Your task to perform on an android device: Go to settings Image 0: 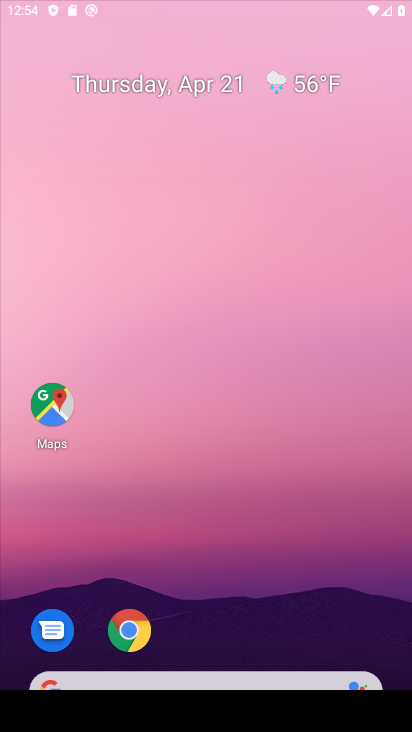
Step 0: drag from (335, 15) to (284, 362)
Your task to perform on an android device: Go to settings Image 1: 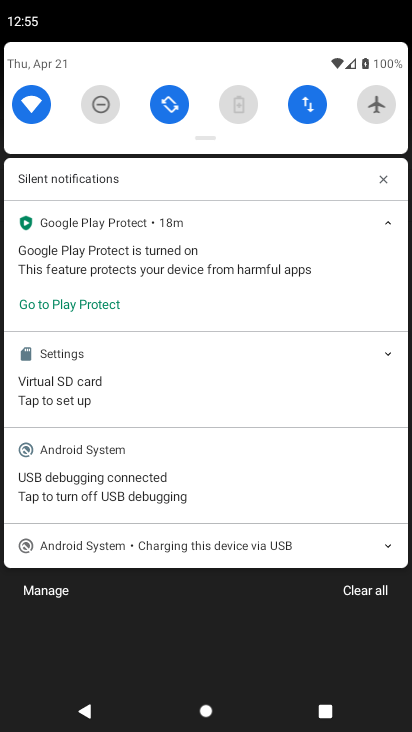
Step 1: press home button
Your task to perform on an android device: Go to settings Image 2: 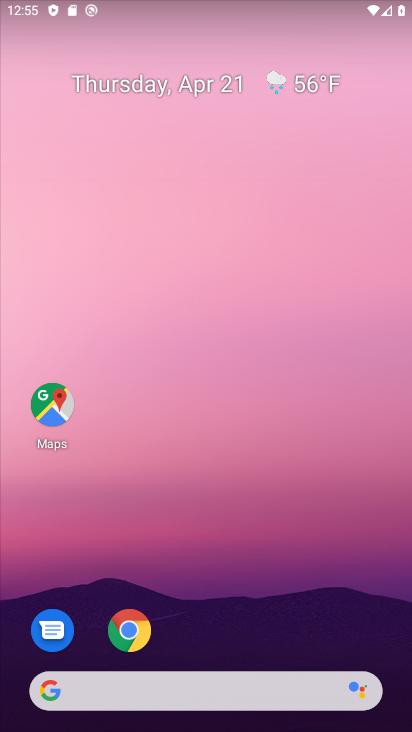
Step 2: drag from (225, 698) to (209, 156)
Your task to perform on an android device: Go to settings Image 3: 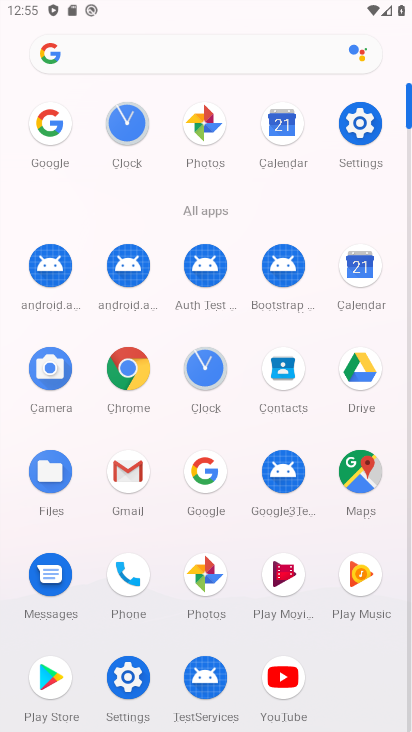
Step 3: click (358, 152)
Your task to perform on an android device: Go to settings Image 4: 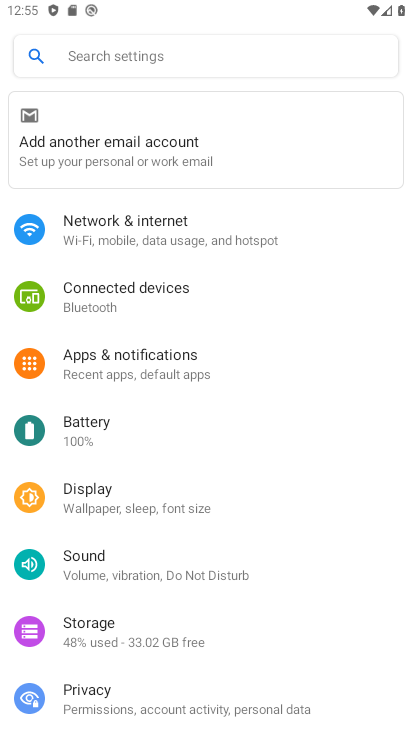
Step 4: task complete